Your task to perform on an android device: Open calendar and show me the second week of next month Image 0: 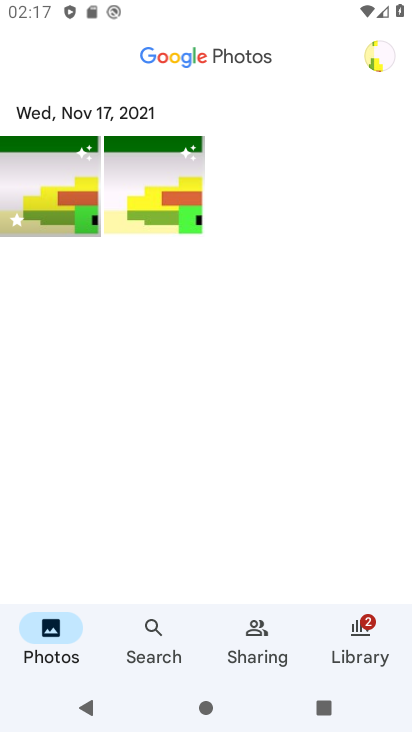
Step 0: drag from (279, 213) to (276, 116)
Your task to perform on an android device: Open calendar and show me the second week of next month Image 1: 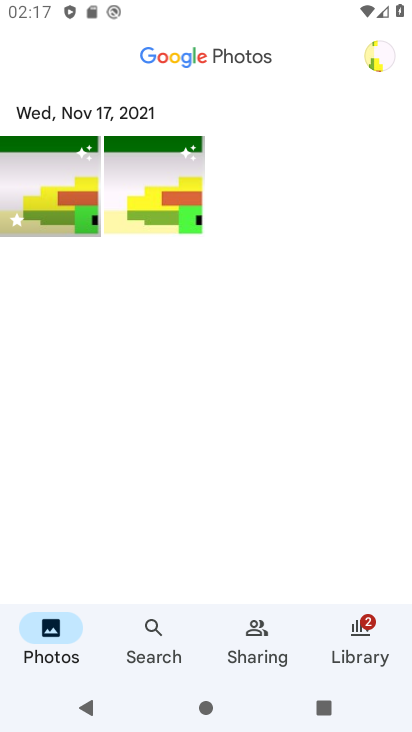
Step 1: press home button
Your task to perform on an android device: Open calendar and show me the second week of next month Image 2: 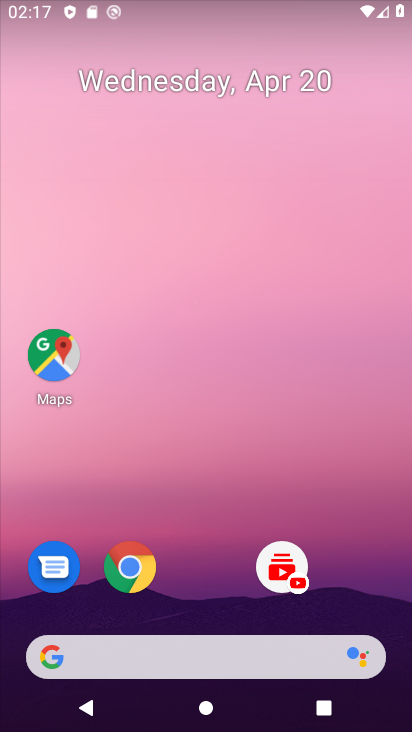
Step 2: drag from (240, 595) to (291, 51)
Your task to perform on an android device: Open calendar and show me the second week of next month Image 3: 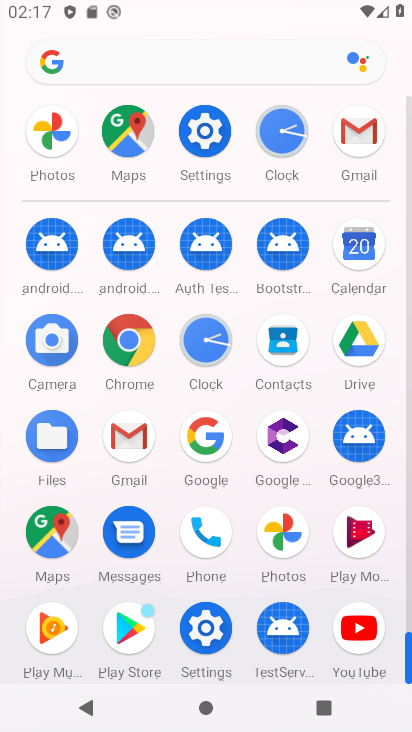
Step 3: click (356, 268)
Your task to perform on an android device: Open calendar and show me the second week of next month Image 4: 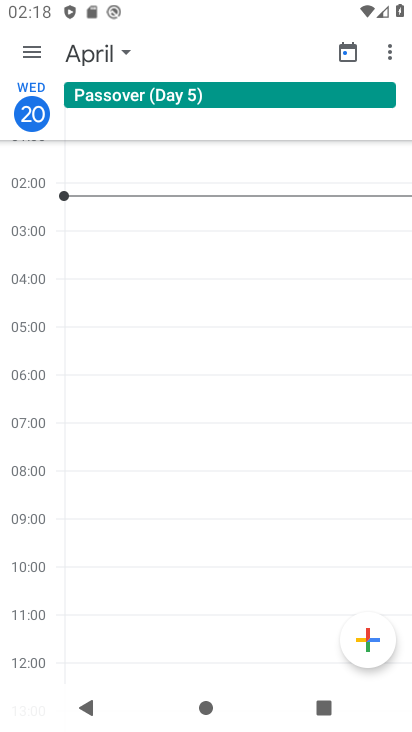
Step 4: drag from (233, 264) to (287, 555)
Your task to perform on an android device: Open calendar and show me the second week of next month Image 5: 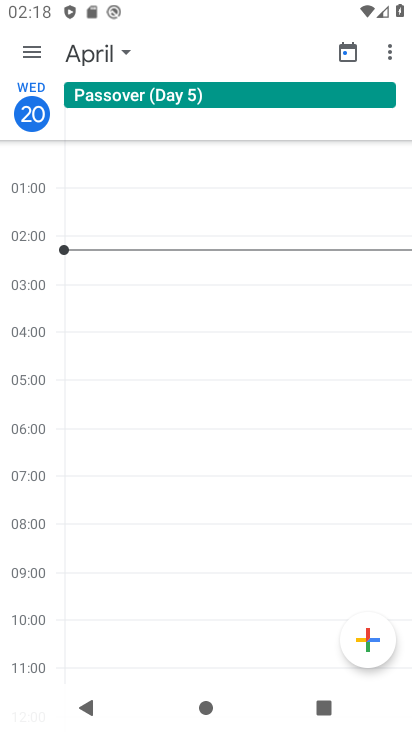
Step 5: click (49, 51)
Your task to perform on an android device: Open calendar and show me the second week of next month Image 6: 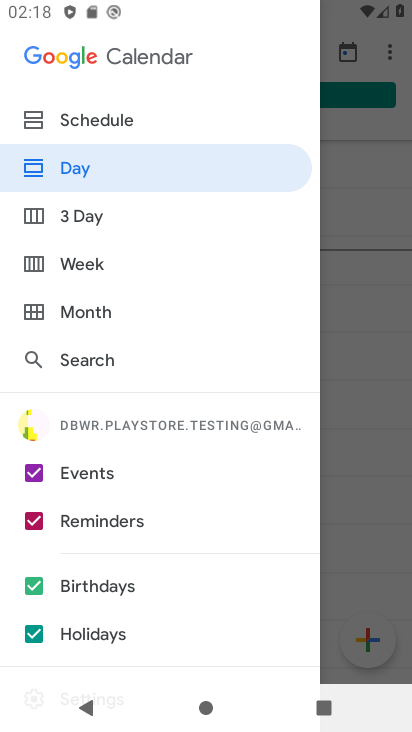
Step 6: click (111, 312)
Your task to perform on an android device: Open calendar and show me the second week of next month Image 7: 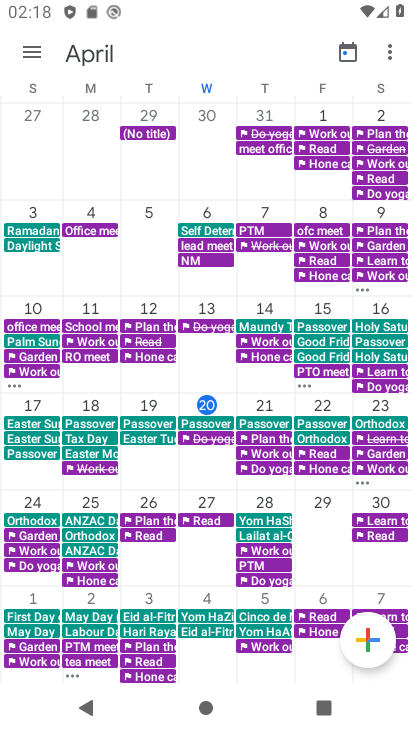
Step 7: drag from (332, 224) to (4, 201)
Your task to perform on an android device: Open calendar and show me the second week of next month Image 8: 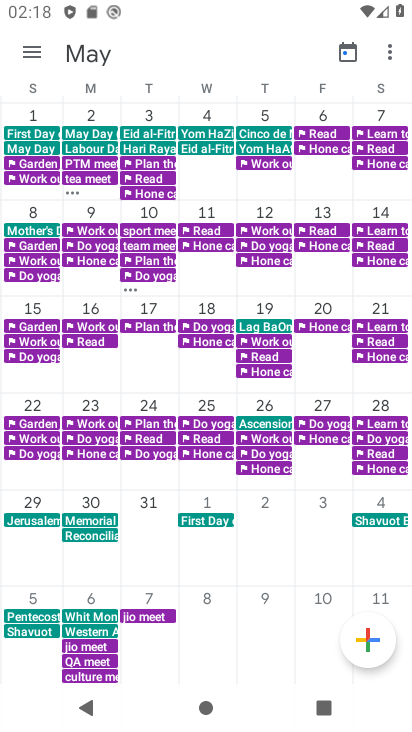
Step 8: click (223, 223)
Your task to perform on an android device: Open calendar and show me the second week of next month Image 9: 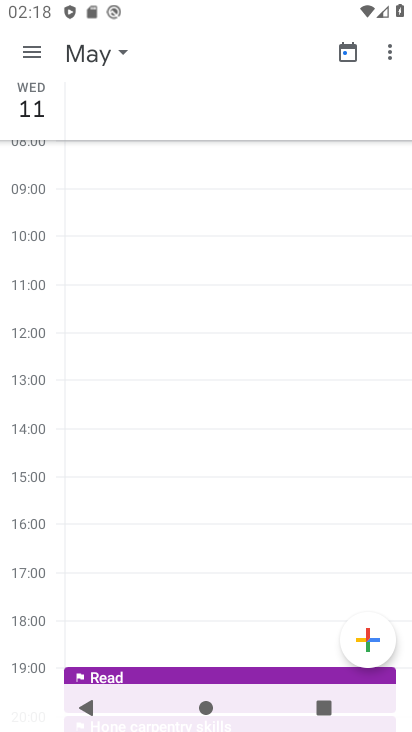
Step 9: task complete